Your task to perform on an android device: Open battery settings Image 0: 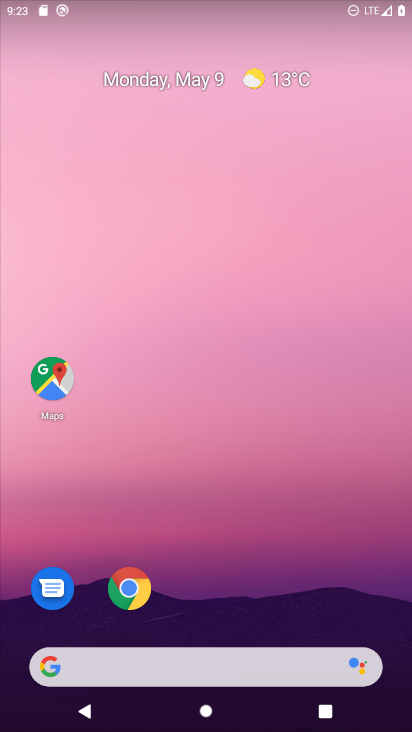
Step 0: drag from (321, 619) to (211, 117)
Your task to perform on an android device: Open battery settings Image 1: 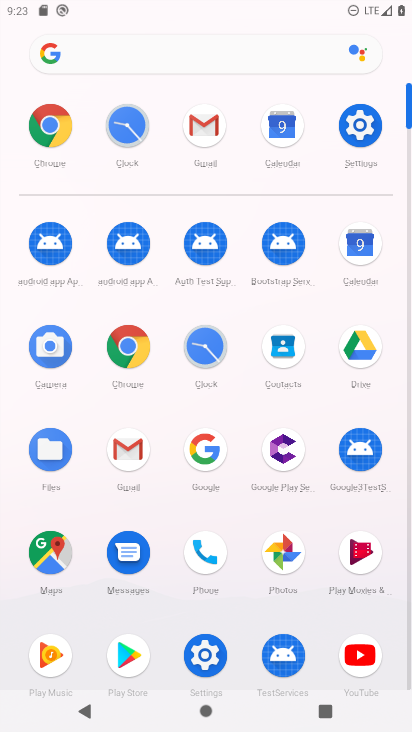
Step 1: click (356, 138)
Your task to perform on an android device: Open battery settings Image 2: 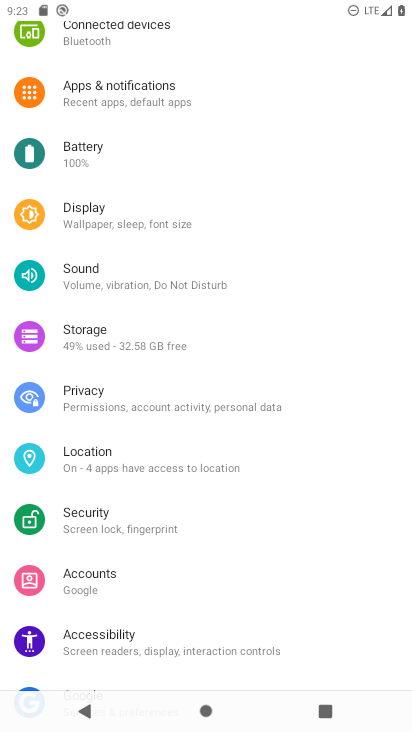
Step 2: click (149, 154)
Your task to perform on an android device: Open battery settings Image 3: 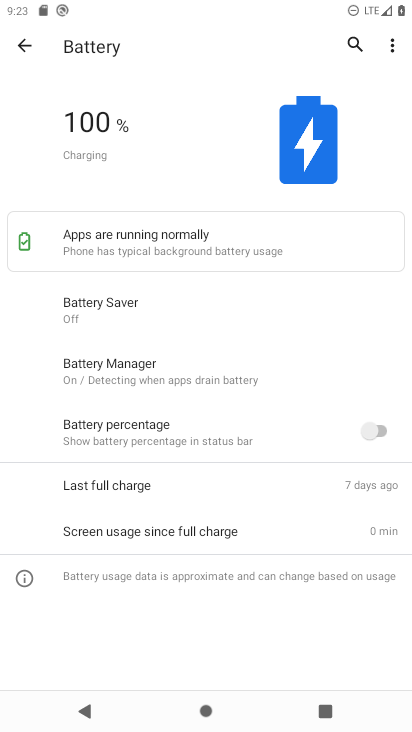
Step 3: task complete